Your task to perform on an android device: Open Google Maps Image 0: 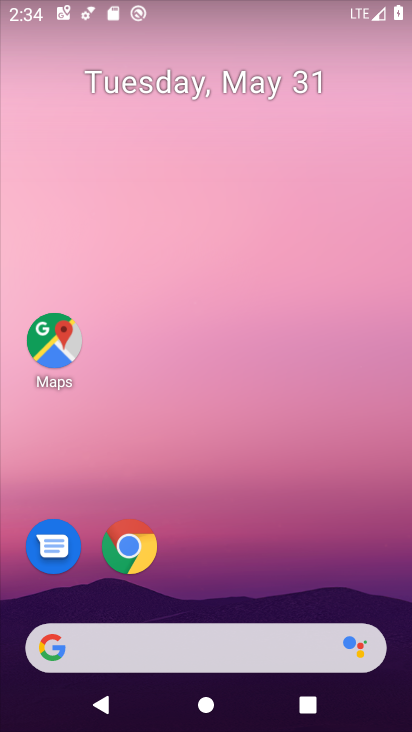
Step 0: click (68, 332)
Your task to perform on an android device: Open Google Maps Image 1: 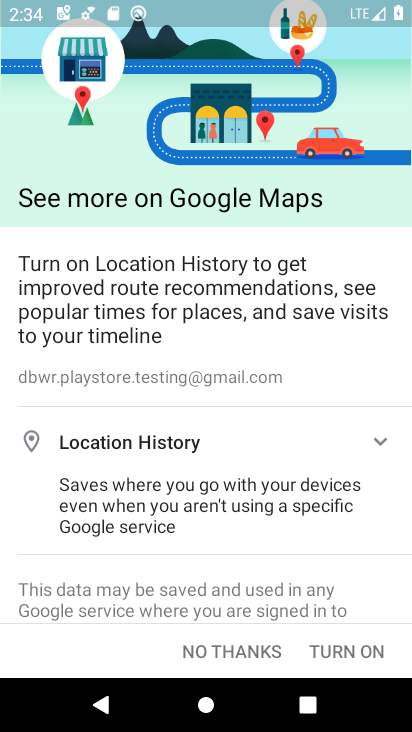
Step 1: press home button
Your task to perform on an android device: Open Google Maps Image 2: 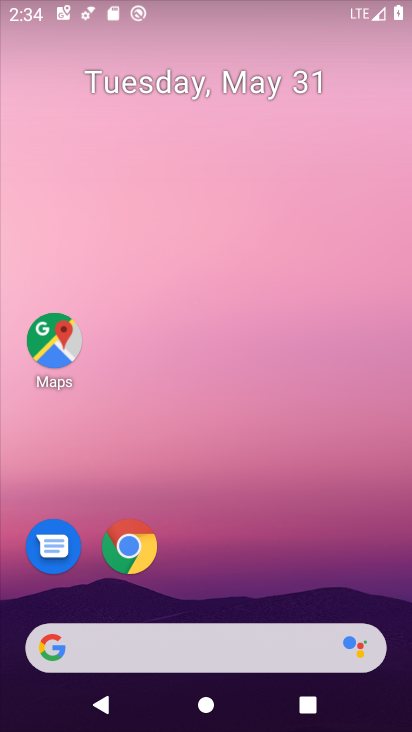
Step 2: click (49, 345)
Your task to perform on an android device: Open Google Maps Image 3: 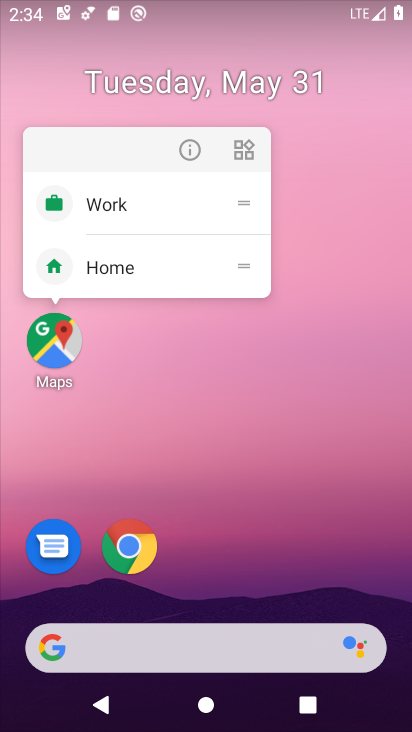
Step 3: click (54, 334)
Your task to perform on an android device: Open Google Maps Image 4: 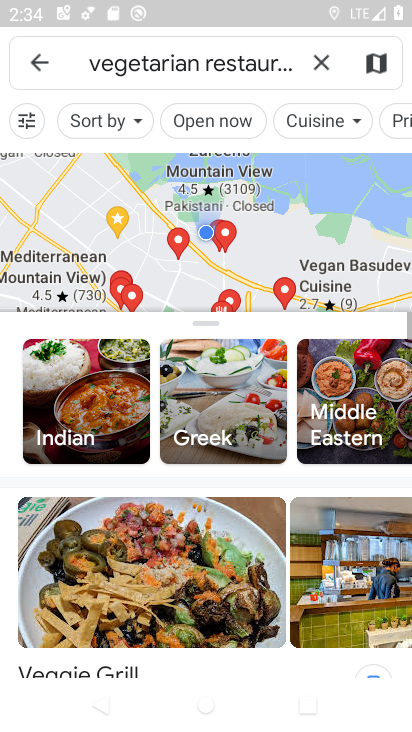
Step 4: task complete